Your task to perform on an android device: turn on data saver in the chrome app Image 0: 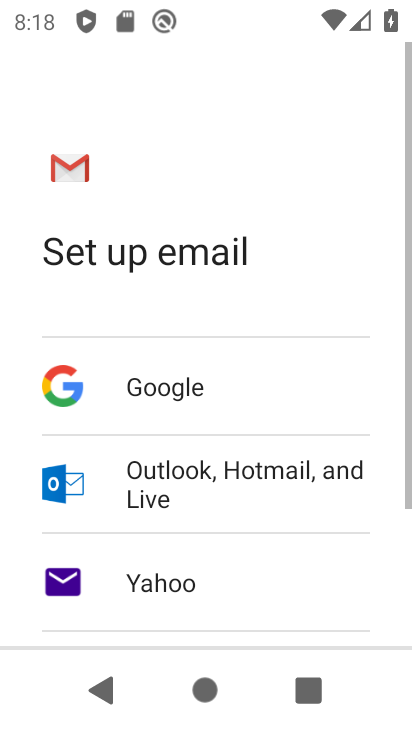
Step 0: press home button
Your task to perform on an android device: turn on data saver in the chrome app Image 1: 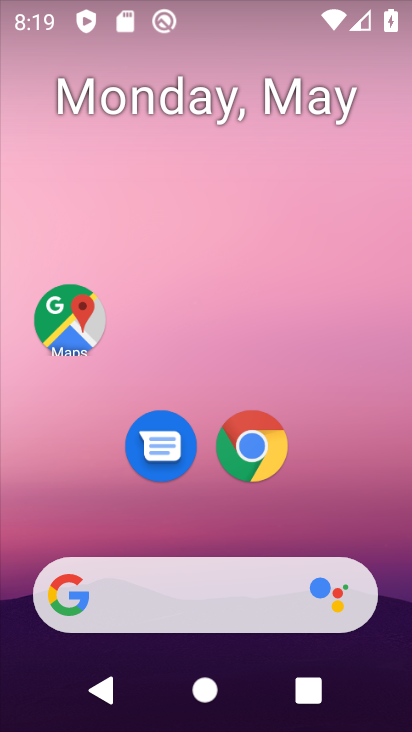
Step 1: click (250, 440)
Your task to perform on an android device: turn on data saver in the chrome app Image 2: 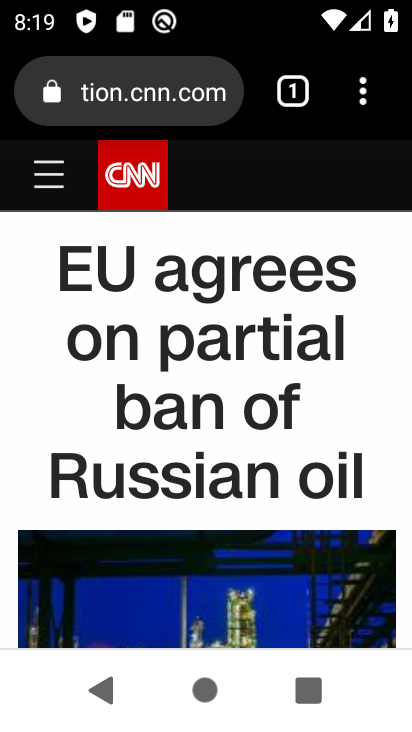
Step 2: click (360, 90)
Your task to perform on an android device: turn on data saver in the chrome app Image 3: 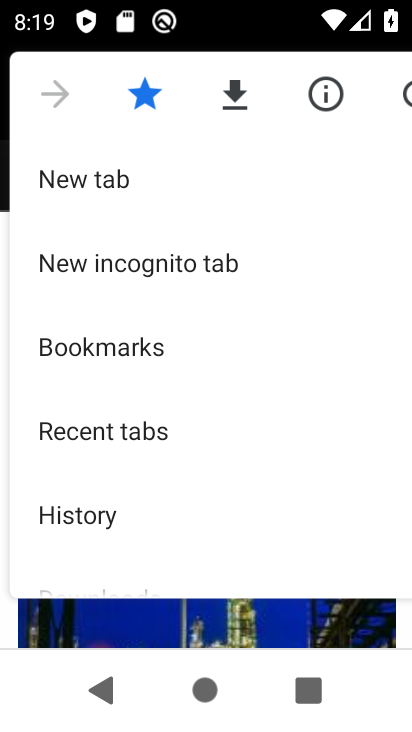
Step 3: drag from (213, 513) to (261, 105)
Your task to perform on an android device: turn on data saver in the chrome app Image 4: 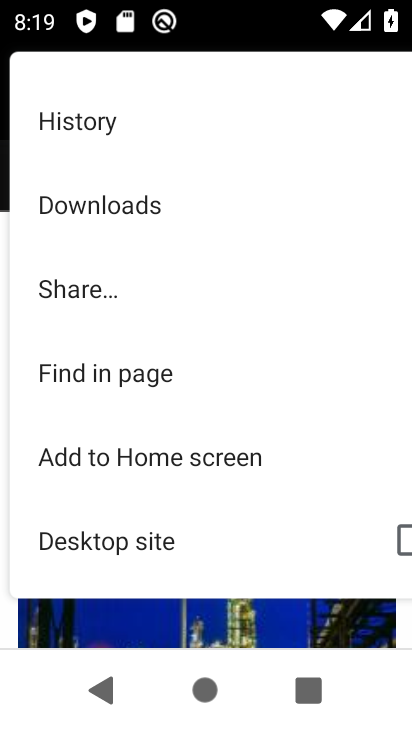
Step 4: drag from (210, 528) to (242, 183)
Your task to perform on an android device: turn on data saver in the chrome app Image 5: 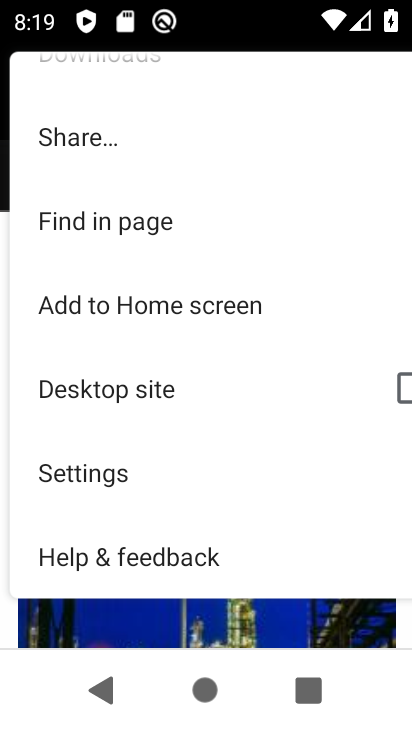
Step 5: click (134, 471)
Your task to perform on an android device: turn on data saver in the chrome app Image 6: 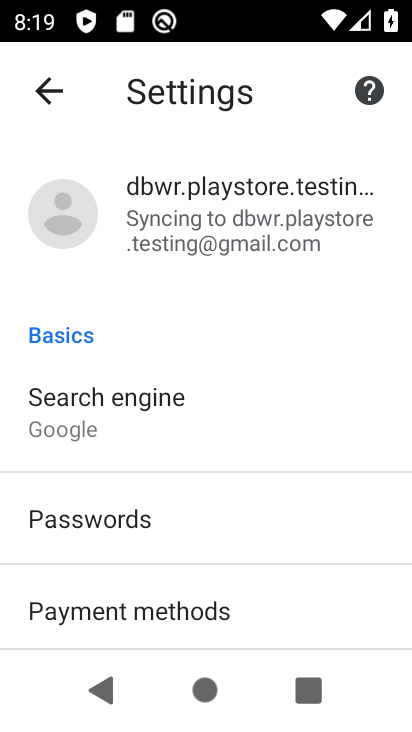
Step 6: drag from (249, 606) to (292, 182)
Your task to perform on an android device: turn on data saver in the chrome app Image 7: 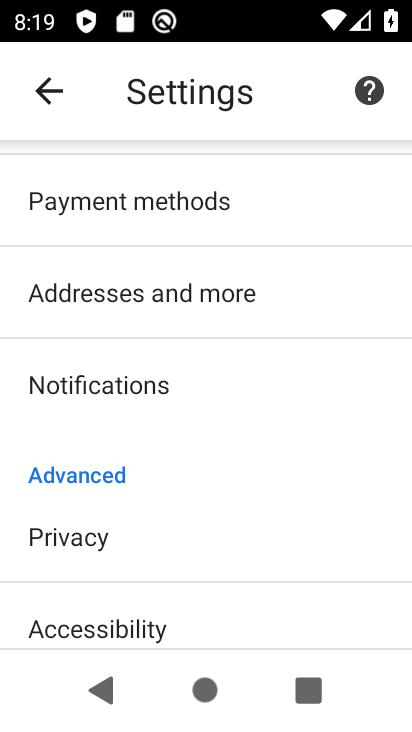
Step 7: drag from (234, 621) to (267, 165)
Your task to perform on an android device: turn on data saver in the chrome app Image 8: 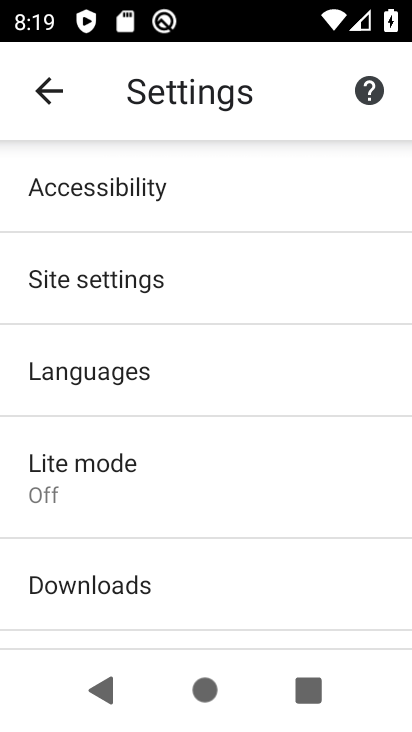
Step 8: click (133, 495)
Your task to perform on an android device: turn on data saver in the chrome app Image 9: 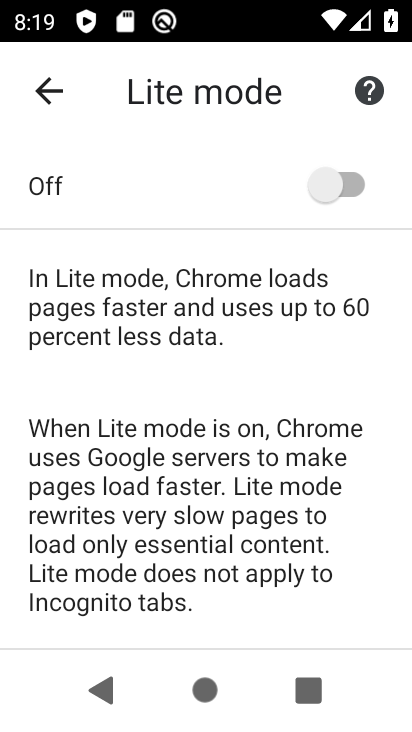
Step 9: click (349, 179)
Your task to perform on an android device: turn on data saver in the chrome app Image 10: 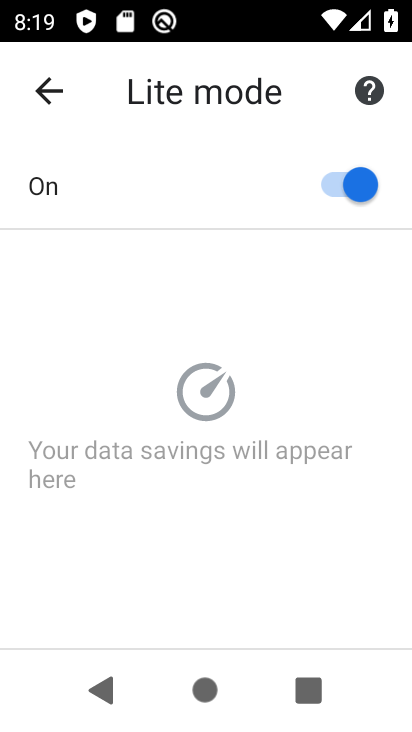
Step 10: task complete